Your task to perform on an android device: turn notification dots off Image 0: 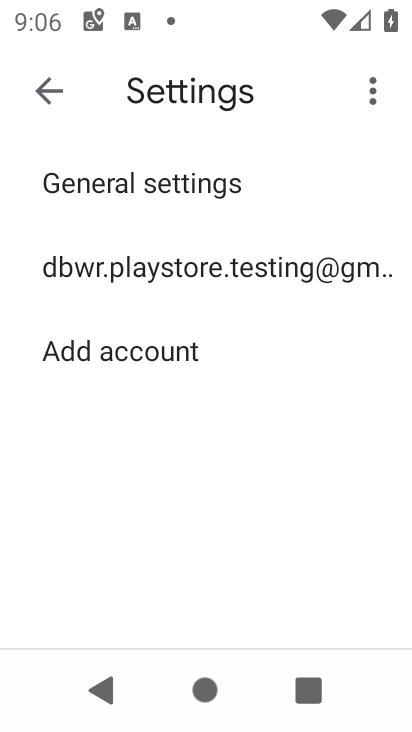
Step 0: press home button
Your task to perform on an android device: turn notification dots off Image 1: 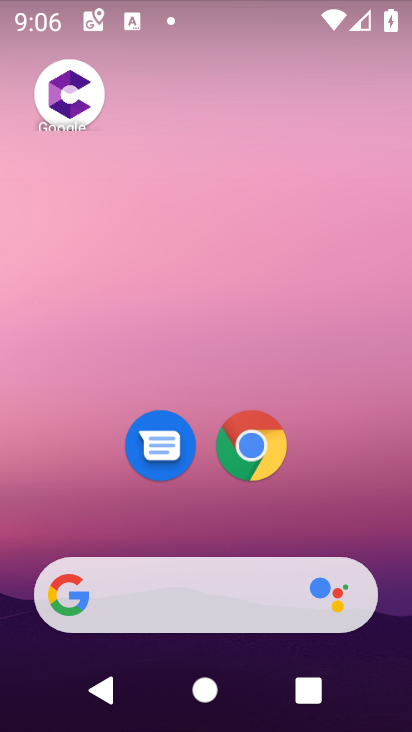
Step 1: drag from (319, 498) to (256, 48)
Your task to perform on an android device: turn notification dots off Image 2: 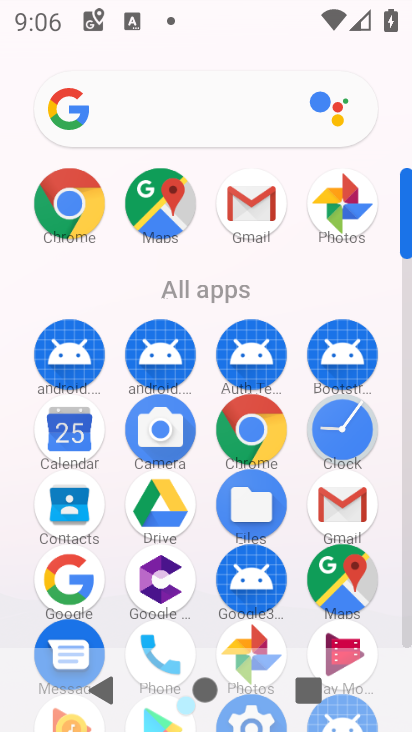
Step 2: drag from (390, 608) to (346, 232)
Your task to perform on an android device: turn notification dots off Image 3: 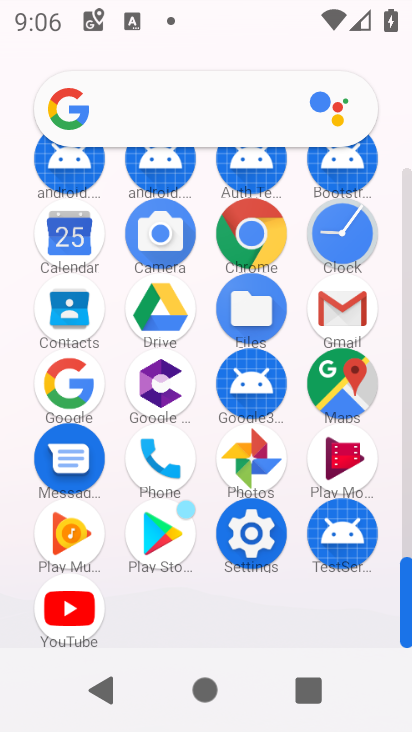
Step 3: click (233, 527)
Your task to perform on an android device: turn notification dots off Image 4: 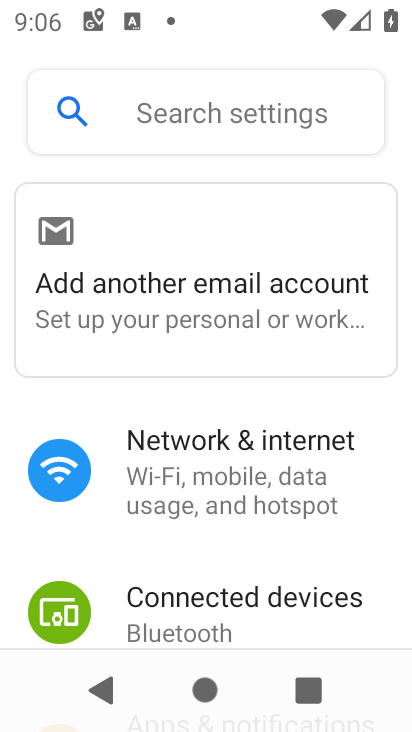
Step 4: drag from (178, 575) to (168, 189)
Your task to perform on an android device: turn notification dots off Image 5: 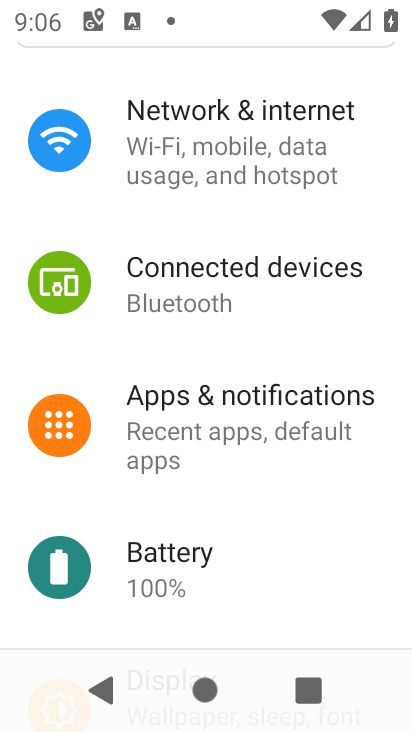
Step 5: click (212, 432)
Your task to perform on an android device: turn notification dots off Image 6: 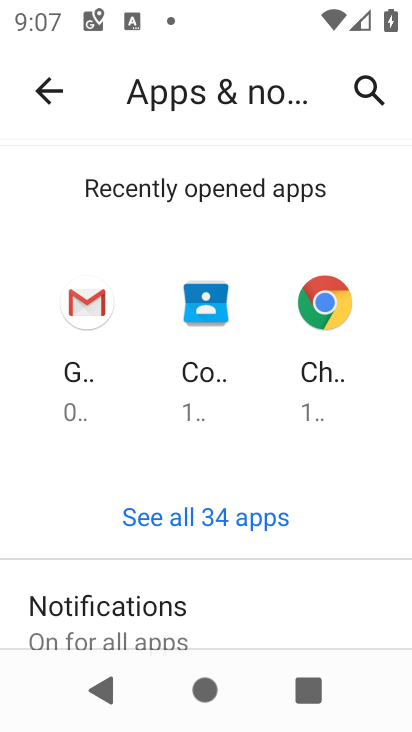
Step 6: drag from (186, 626) to (131, 385)
Your task to perform on an android device: turn notification dots off Image 7: 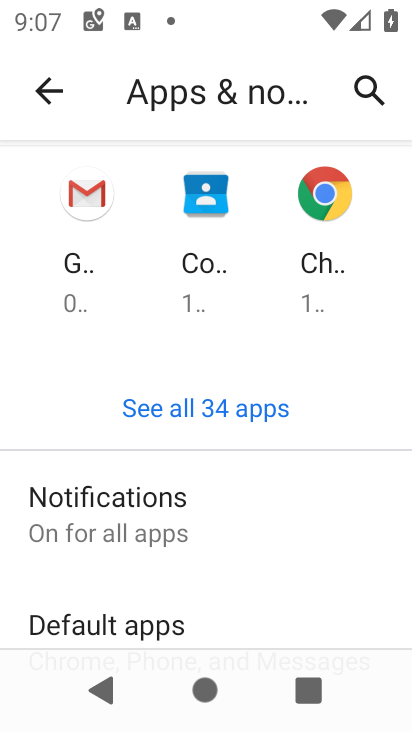
Step 7: click (100, 482)
Your task to perform on an android device: turn notification dots off Image 8: 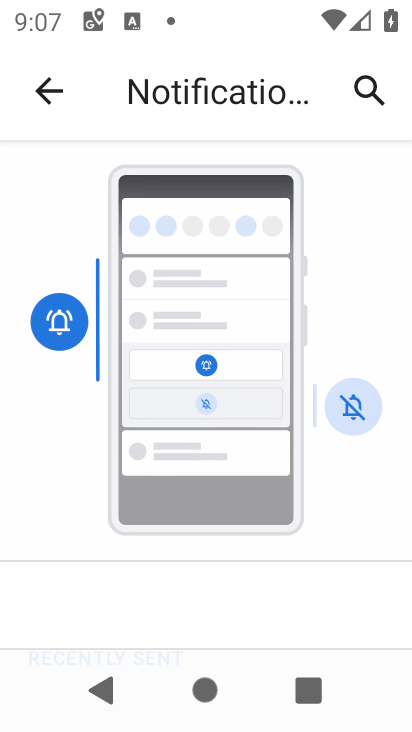
Step 8: drag from (131, 583) to (178, 30)
Your task to perform on an android device: turn notification dots off Image 9: 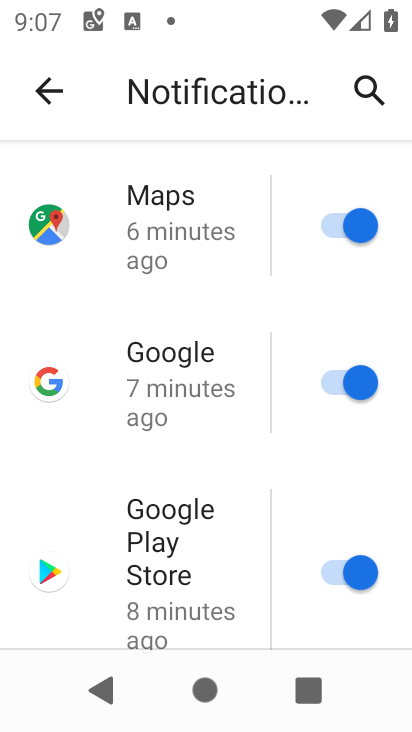
Step 9: drag from (220, 484) to (238, 149)
Your task to perform on an android device: turn notification dots off Image 10: 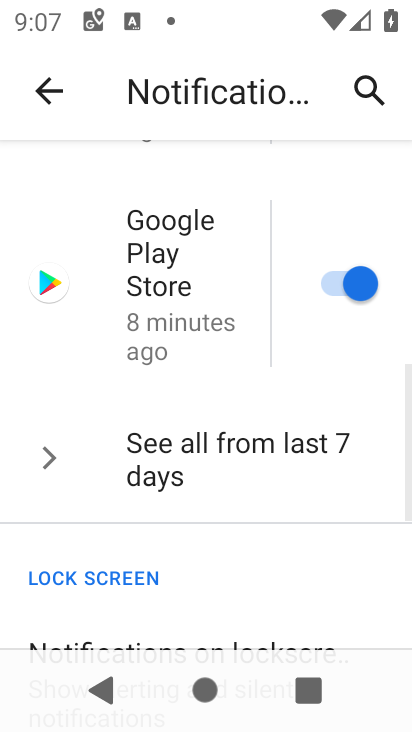
Step 10: drag from (226, 579) to (263, 289)
Your task to perform on an android device: turn notification dots off Image 11: 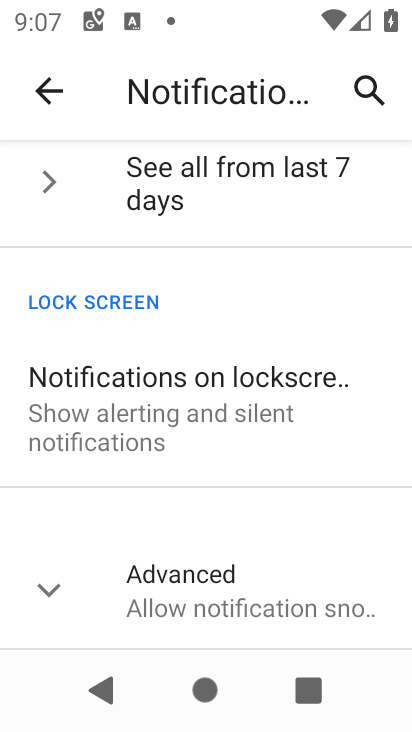
Step 11: drag from (245, 548) to (278, 301)
Your task to perform on an android device: turn notification dots off Image 12: 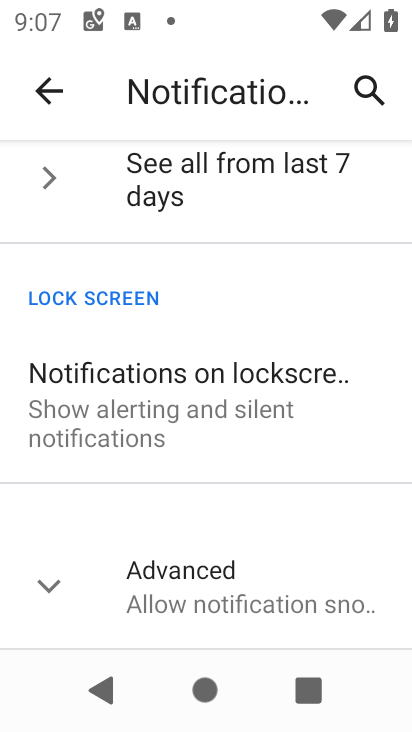
Step 12: click (205, 586)
Your task to perform on an android device: turn notification dots off Image 13: 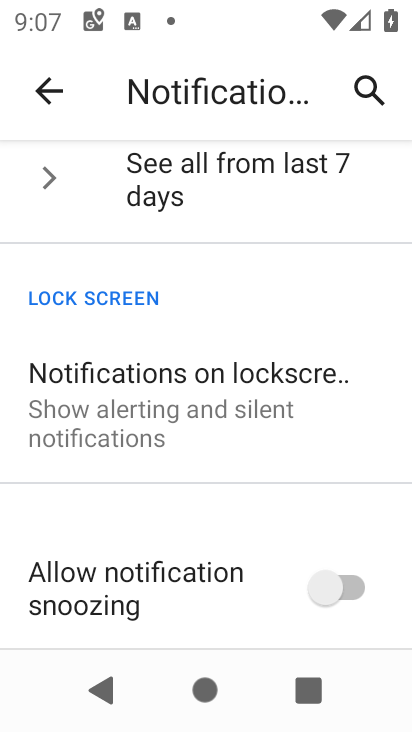
Step 13: drag from (212, 544) to (189, 164)
Your task to perform on an android device: turn notification dots off Image 14: 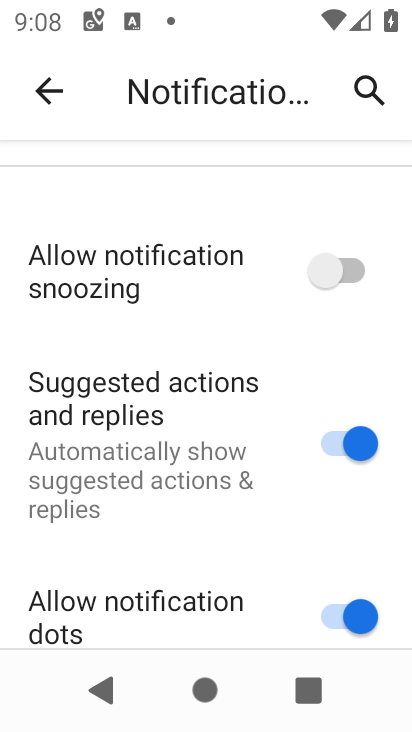
Step 14: drag from (143, 589) to (131, 305)
Your task to perform on an android device: turn notification dots off Image 15: 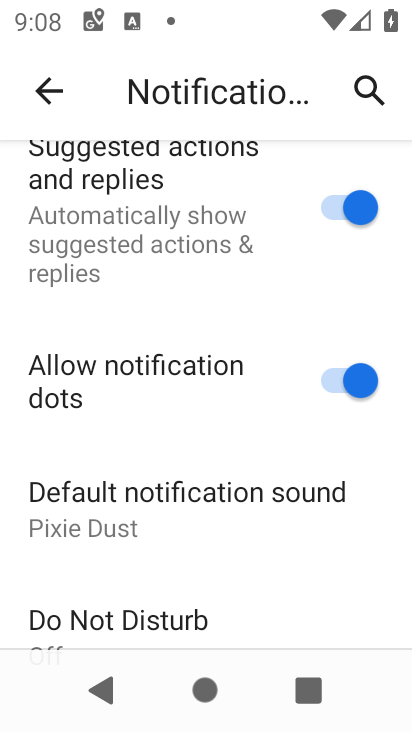
Step 15: drag from (171, 550) to (128, 286)
Your task to perform on an android device: turn notification dots off Image 16: 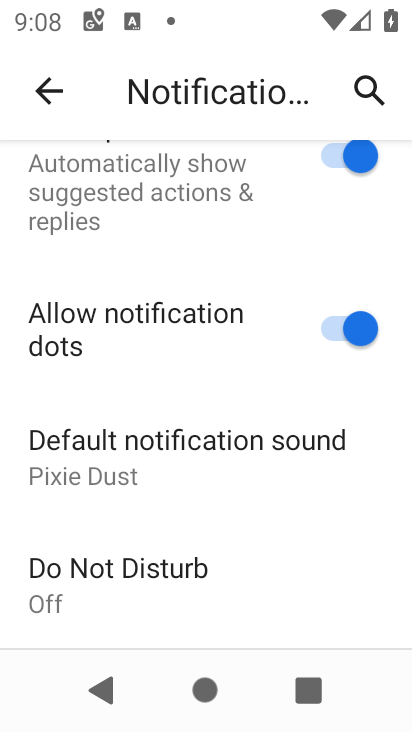
Step 16: drag from (226, 562) to (228, 281)
Your task to perform on an android device: turn notification dots off Image 17: 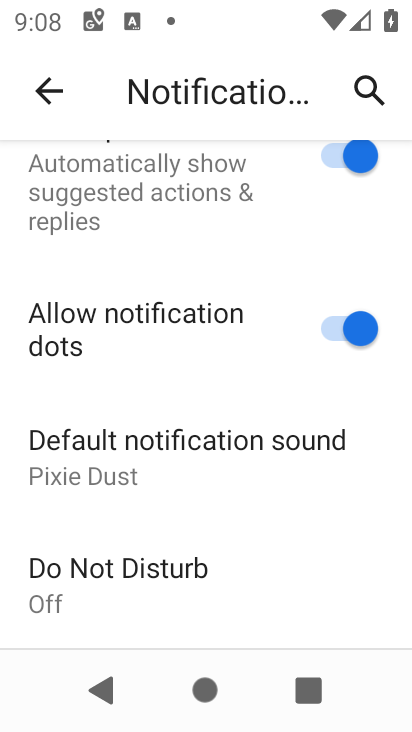
Step 17: drag from (229, 495) to (209, 231)
Your task to perform on an android device: turn notification dots off Image 18: 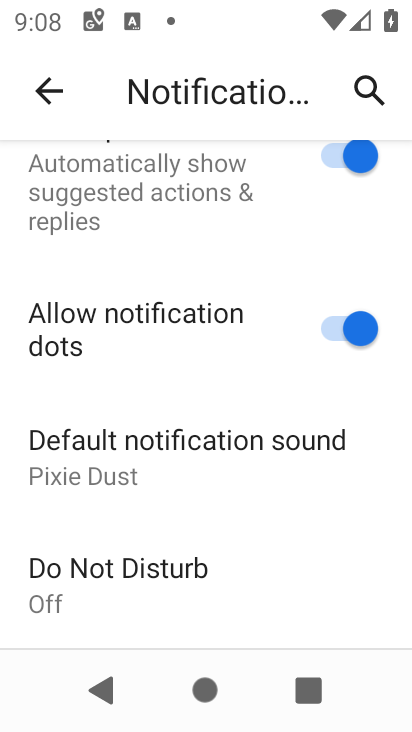
Step 18: drag from (225, 601) to (203, 289)
Your task to perform on an android device: turn notification dots off Image 19: 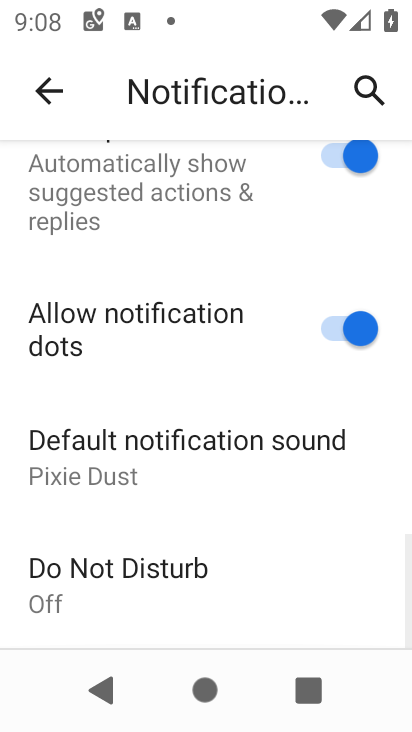
Step 19: drag from (208, 301) to (275, 593)
Your task to perform on an android device: turn notification dots off Image 20: 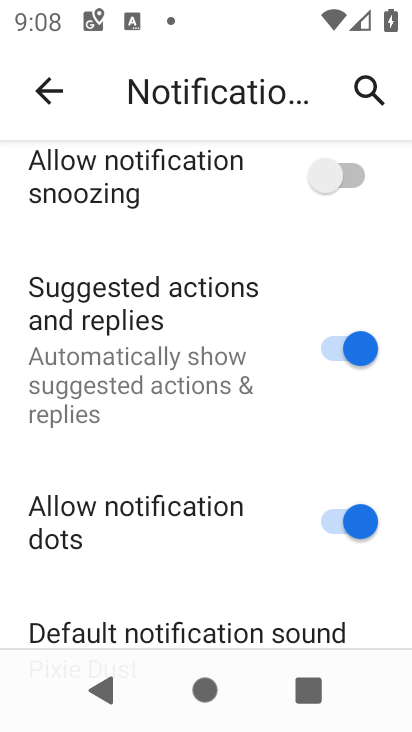
Step 20: drag from (229, 338) to (306, 625)
Your task to perform on an android device: turn notification dots off Image 21: 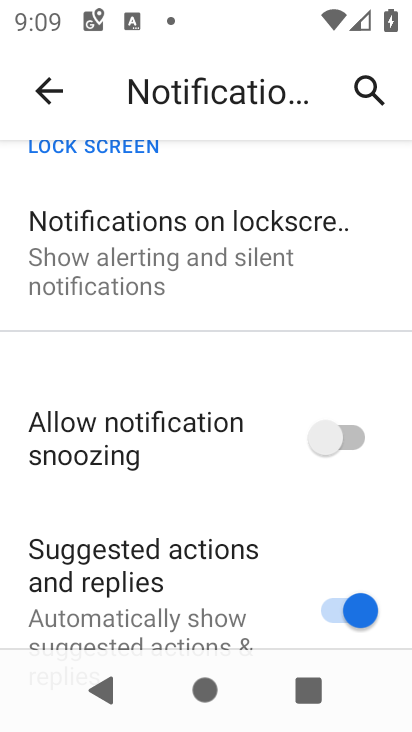
Step 21: drag from (222, 378) to (301, 684)
Your task to perform on an android device: turn notification dots off Image 22: 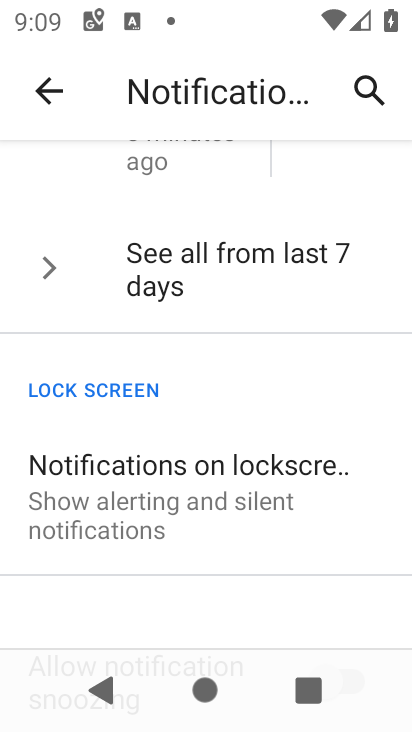
Step 22: drag from (244, 602) to (164, 231)
Your task to perform on an android device: turn notification dots off Image 23: 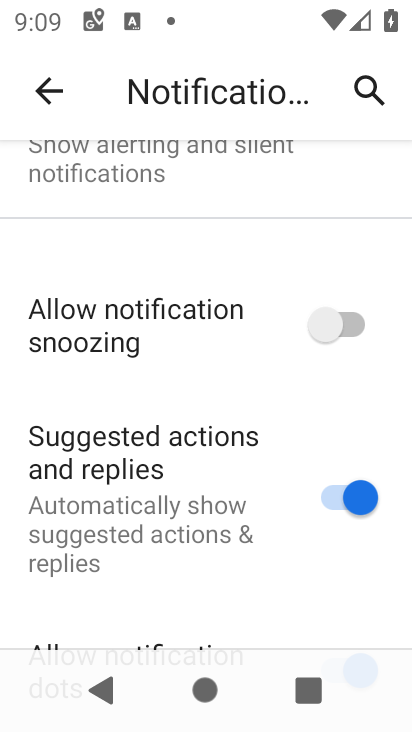
Step 23: drag from (136, 540) to (79, 186)
Your task to perform on an android device: turn notification dots off Image 24: 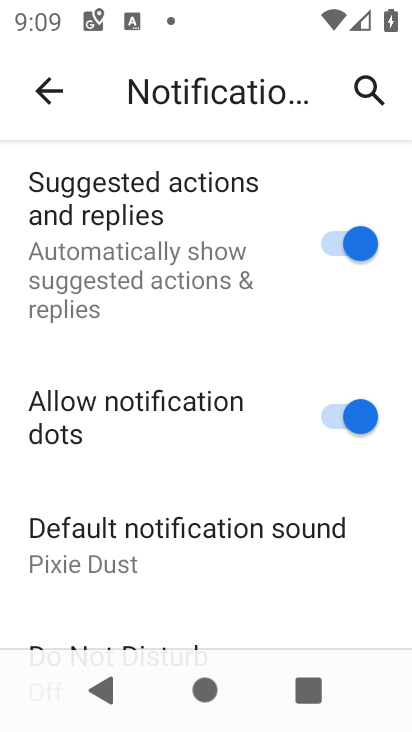
Step 24: drag from (86, 439) to (63, 159)
Your task to perform on an android device: turn notification dots off Image 25: 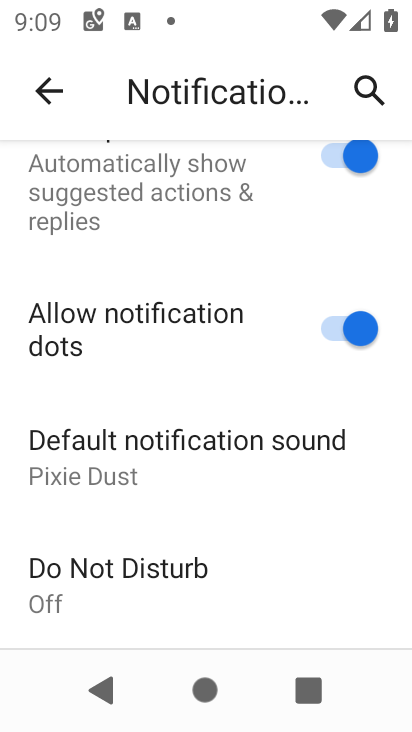
Step 25: drag from (119, 569) to (27, 164)
Your task to perform on an android device: turn notification dots off Image 26: 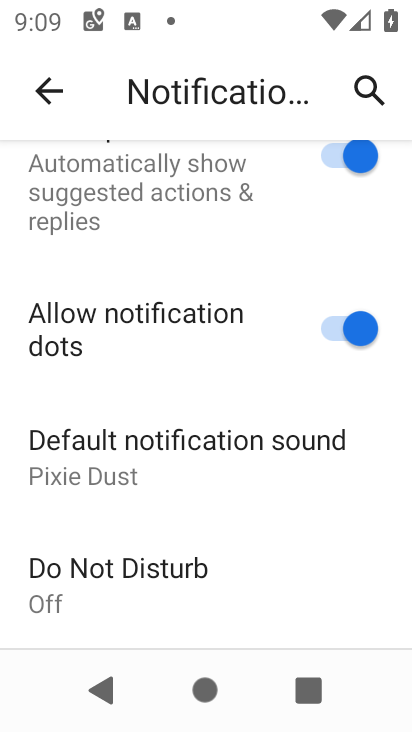
Step 26: drag from (125, 480) to (172, 142)
Your task to perform on an android device: turn notification dots off Image 27: 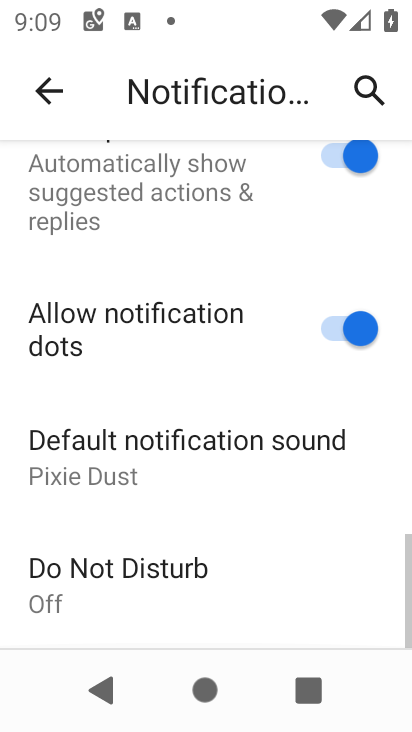
Step 27: drag from (176, 560) to (144, 394)
Your task to perform on an android device: turn notification dots off Image 28: 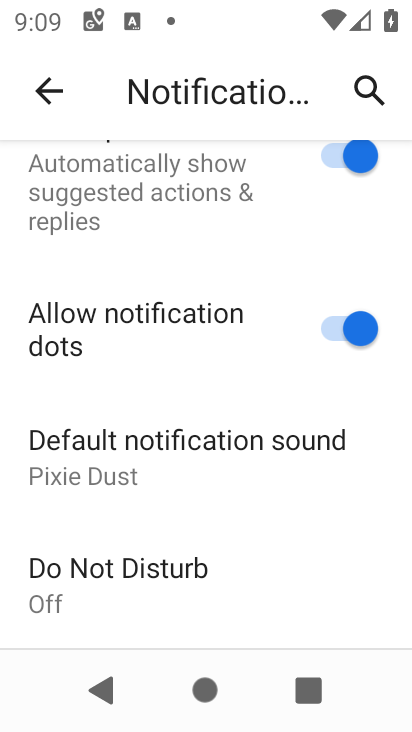
Step 28: click (103, 326)
Your task to perform on an android device: turn notification dots off Image 29: 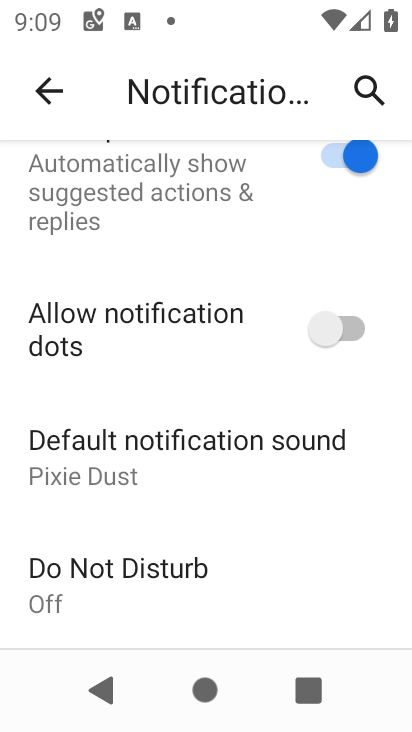
Step 29: task complete